Your task to perform on an android device: Open Google Chrome Image 0: 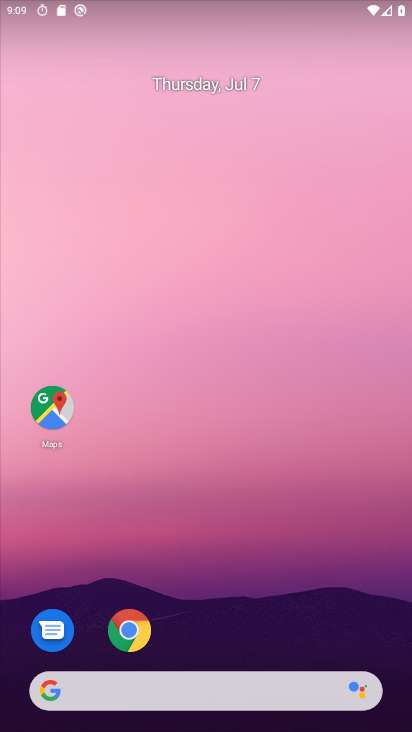
Step 0: drag from (52, 620) to (370, 9)
Your task to perform on an android device: Open Google Chrome Image 1: 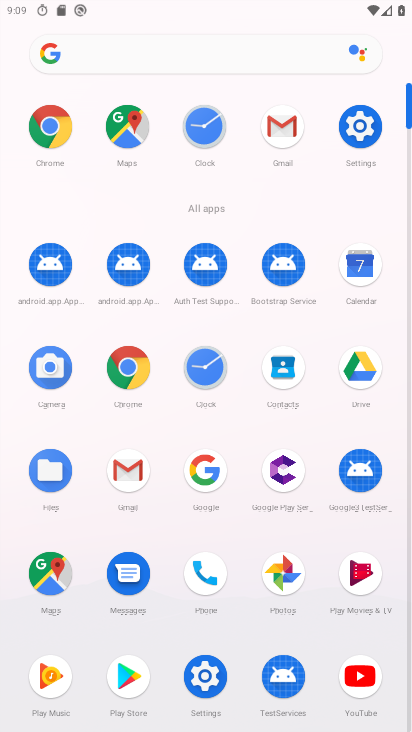
Step 1: click (209, 687)
Your task to perform on an android device: Open Google Chrome Image 2: 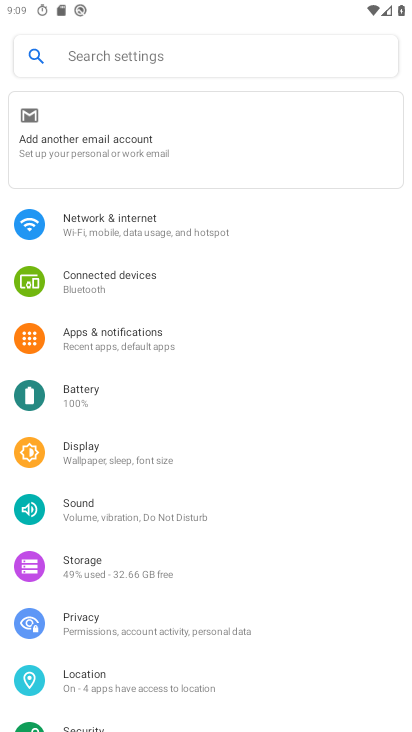
Step 2: press home button
Your task to perform on an android device: Open Google Chrome Image 3: 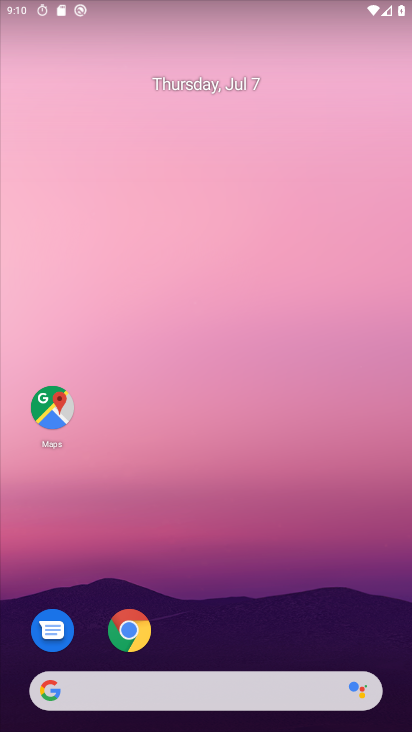
Step 3: click (60, 424)
Your task to perform on an android device: Open Google Chrome Image 4: 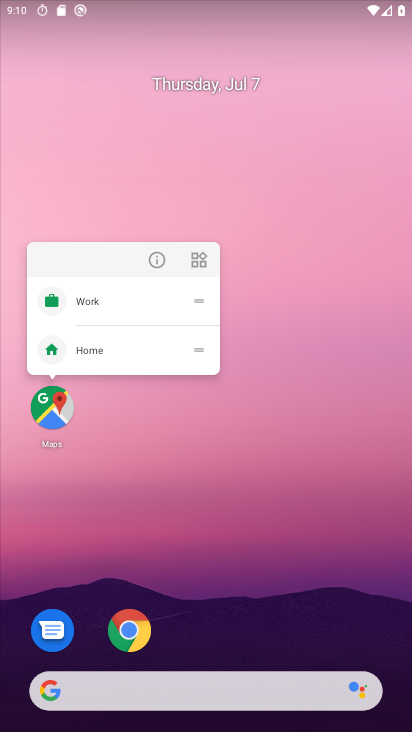
Step 4: click (121, 610)
Your task to perform on an android device: Open Google Chrome Image 5: 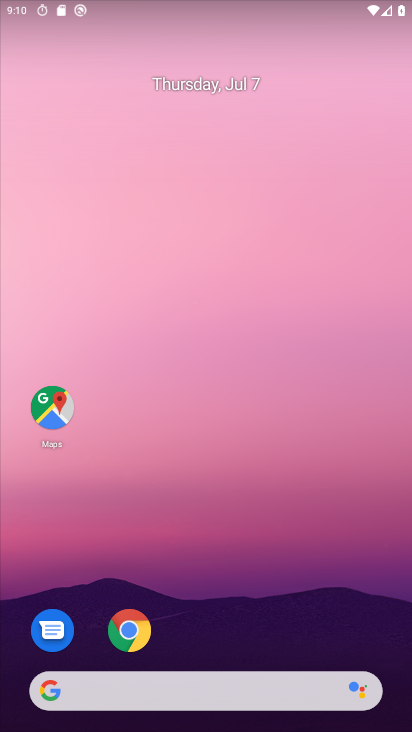
Step 5: click (122, 629)
Your task to perform on an android device: Open Google Chrome Image 6: 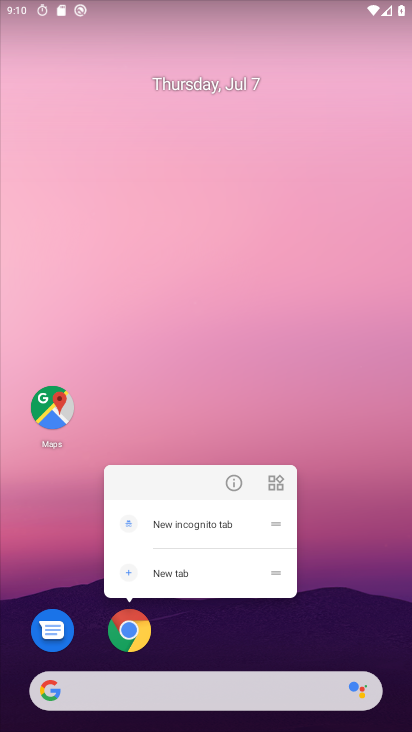
Step 6: click (127, 626)
Your task to perform on an android device: Open Google Chrome Image 7: 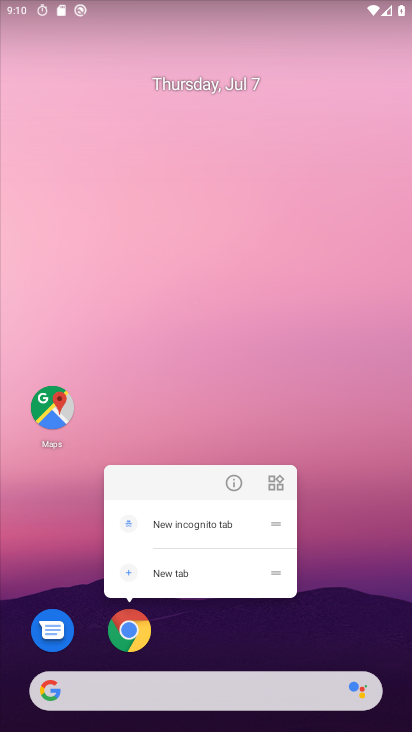
Step 7: click (120, 630)
Your task to perform on an android device: Open Google Chrome Image 8: 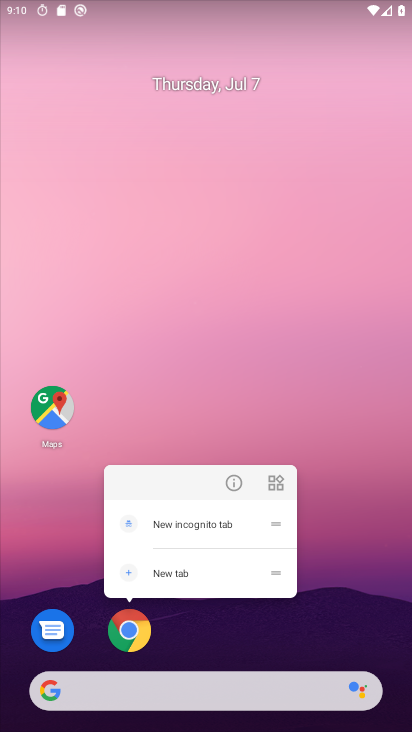
Step 8: task complete